Your task to perform on an android device: star an email in the gmail app Image 0: 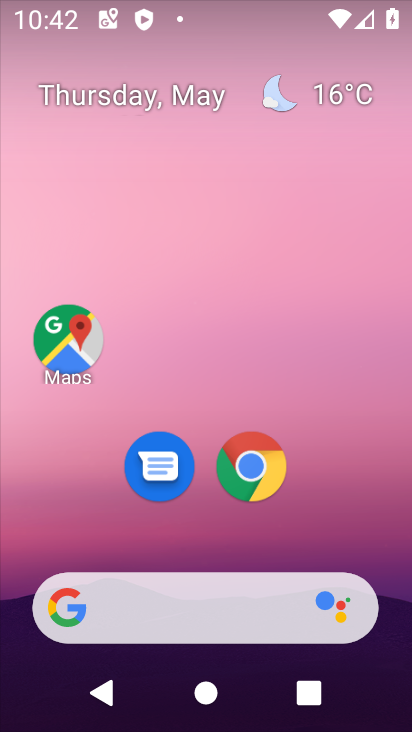
Step 0: drag from (341, 511) to (400, 156)
Your task to perform on an android device: star an email in the gmail app Image 1: 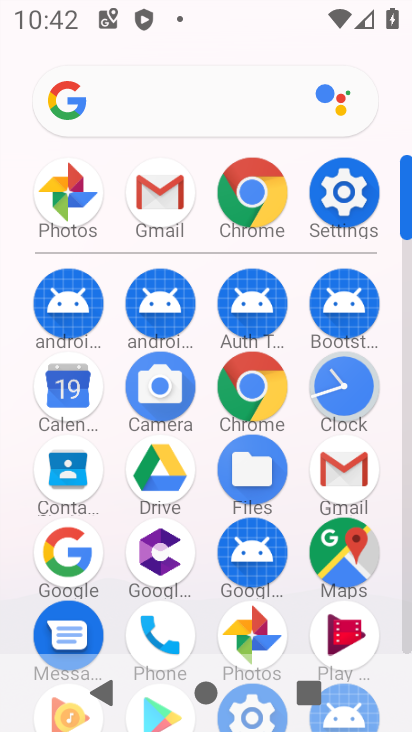
Step 1: click (339, 462)
Your task to perform on an android device: star an email in the gmail app Image 2: 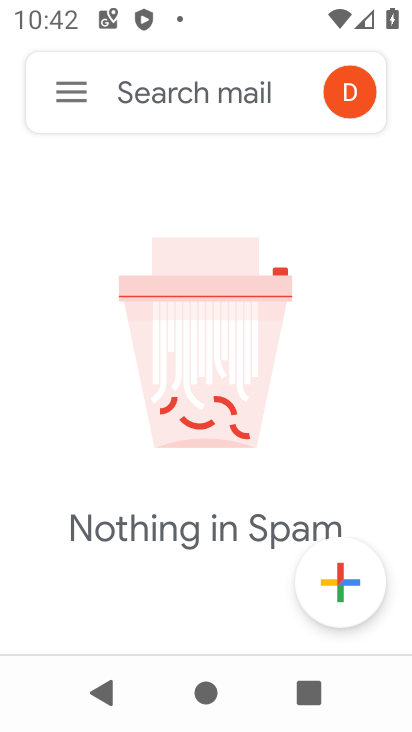
Step 2: click (66, 80)
Your task to perform on an android device: star an email in the gmail app Image 3: 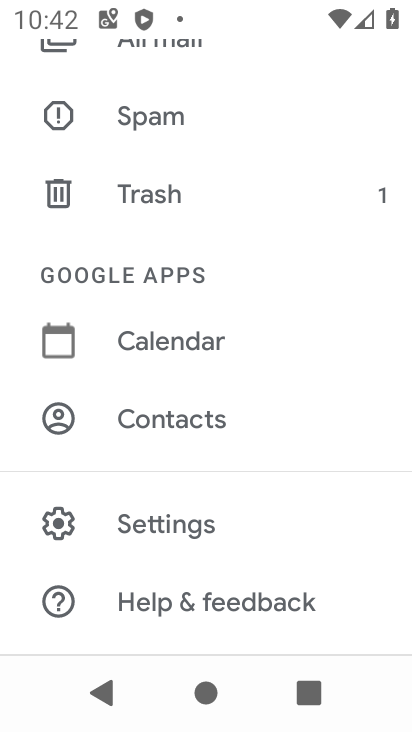
Step 3: drag from (220, 256) to (217, 445)
Your task to perform on an android device: star an email in the gmail app Image 4: 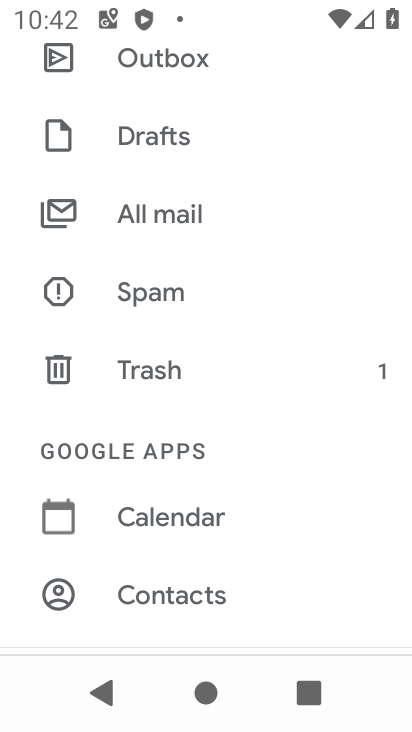
Step 4: drag from (203, 219) to (196, 472)
Your task to perform on an android device: star an email in the gmail app Image 5: 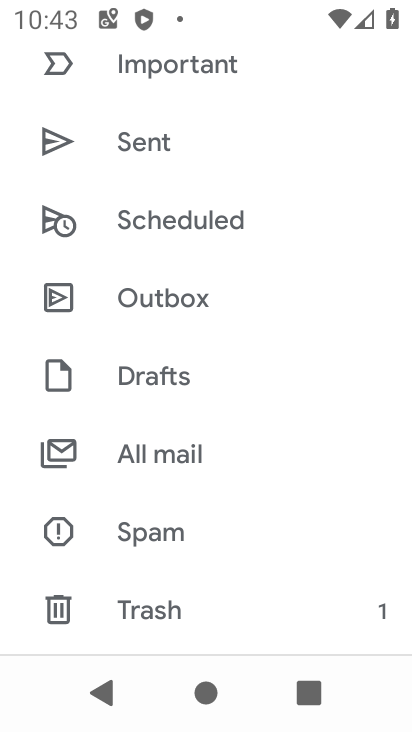
Step 5: drag from (187, 161) to (173, 462)
Your task to perform on an android device: star an email in the gmail app Image 6: 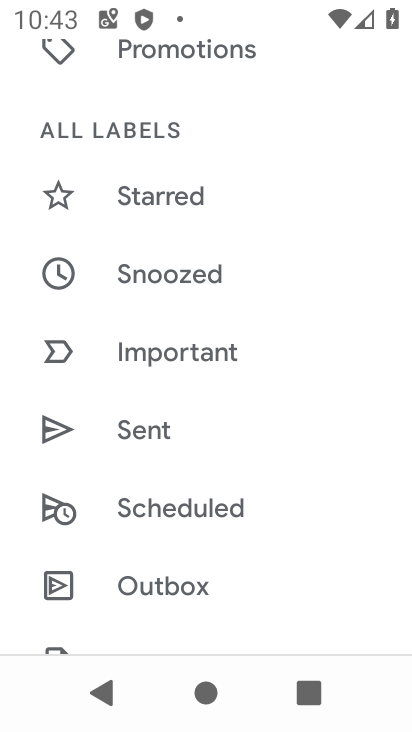
Step 6: drag from (191, 107) to (157, 381)
Your task to perform on an android device: star an email in the gmail app Image 7: 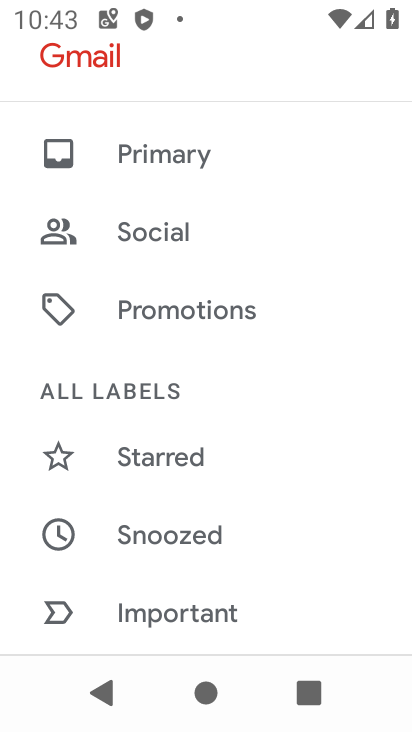
Step 7: click (181, 465)
Your task to perform on an android device: star an email in the gmail app Image 8: 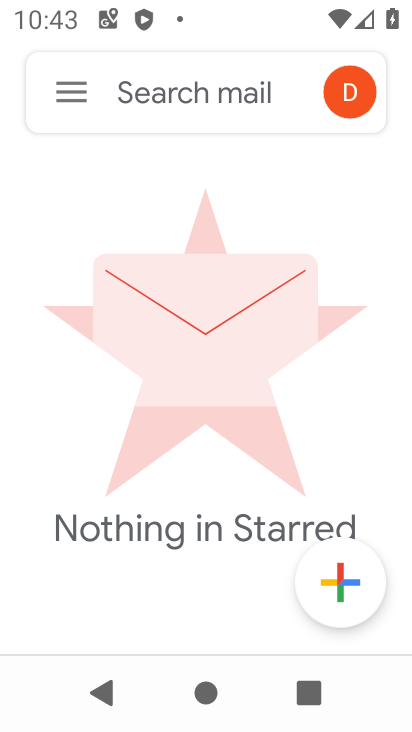
Step 8: task complete